Your task to perform on an android device: check google app version Image 0: 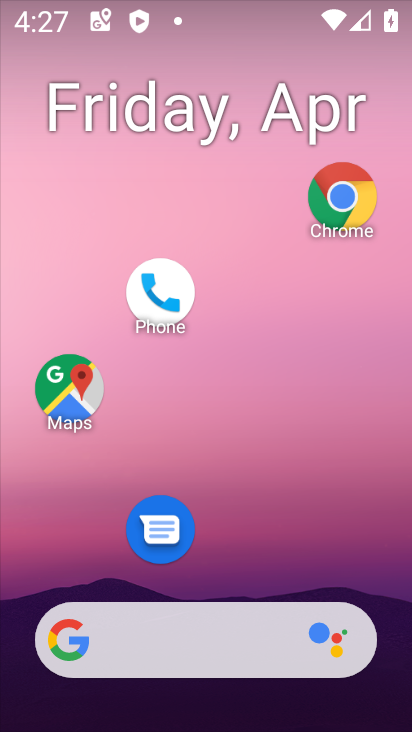
Step 0: drag from (264, 583) to (258, 96)
Your task to perform on an android device: check google app version Image 1: 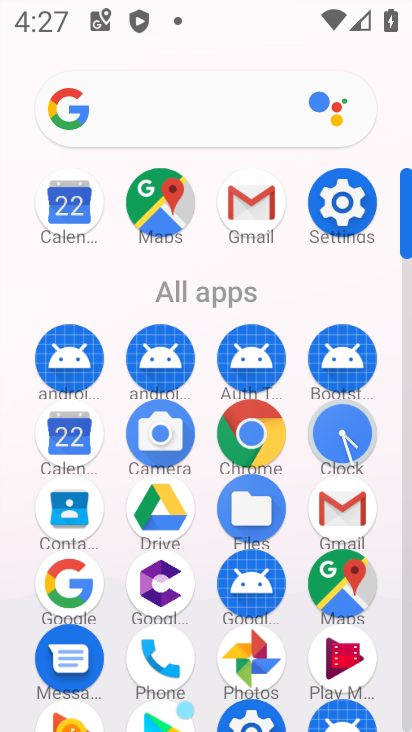
Step 1: click (70, 581)
Your task to perform on an android device: check google app version Image 2: 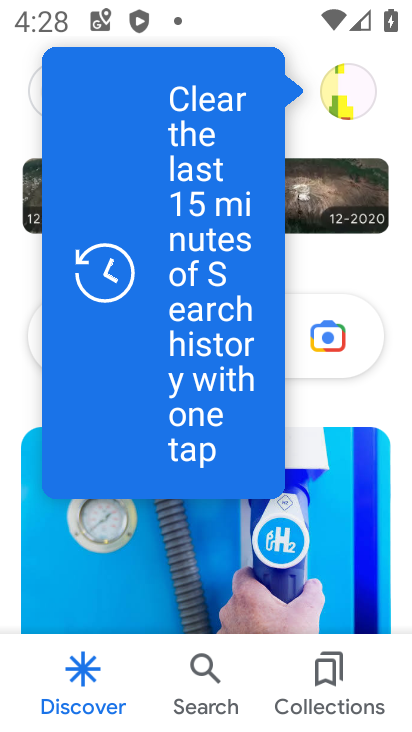
Step 2: drag from (354, 674) to (10, 679)
Your task to perform on an android device: check google app version Image 3: 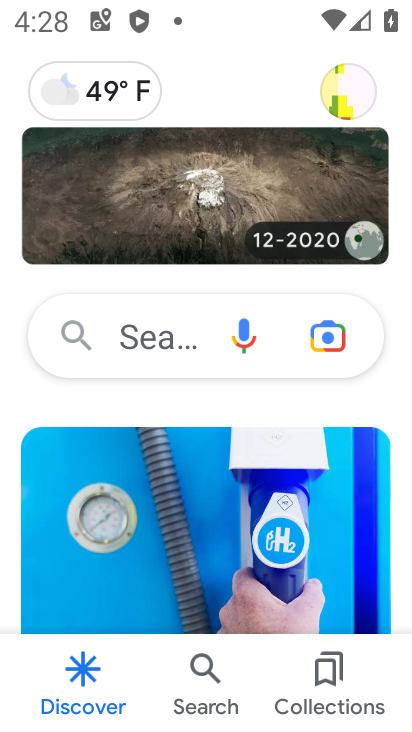
Step 3: click (347, 91)
Your task to perform on an android device: check google app version Image 4: 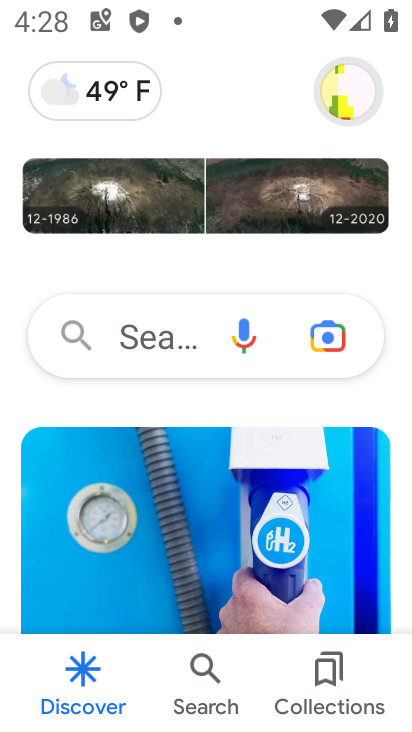
Step 4: click (346, 83)
Your task to perform on an android device: check google app version Image 5: 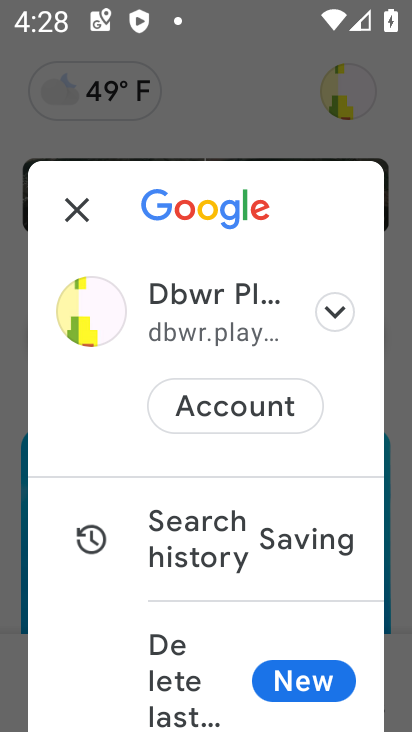
Step 5: drag from (178, 621) to (189, 381)
Your task to perform on an android device: check google app version Image 6: 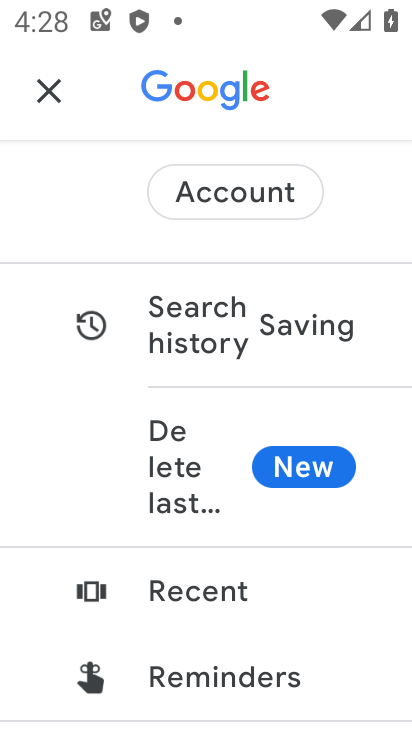
Step 6: drag from (174, 620) to (175, 267)
Your task to perform on an android device: check google app version Image 7: 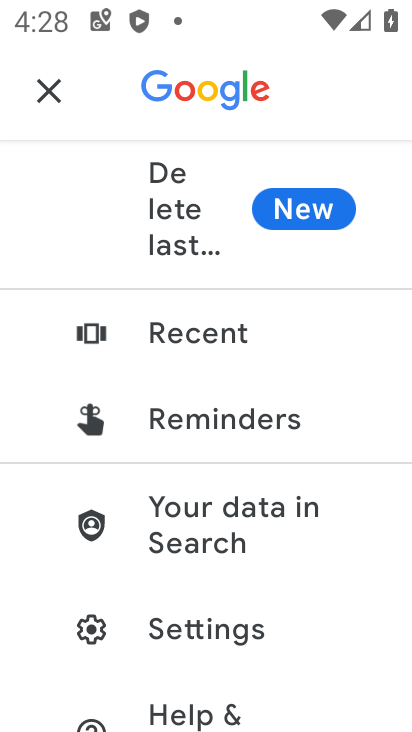
Step 7: click (126, 622)
Your task to perform on an android device: check google app version Image 8: 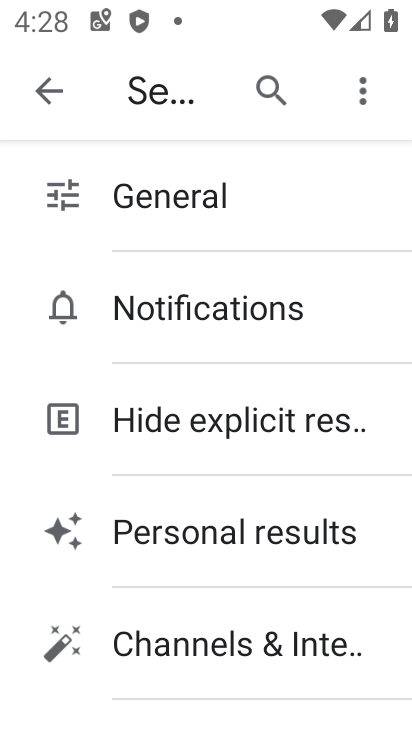
Step 8: drag from (203, 372) to (220, 212)
Your task to perform on an android device: check google app version Image 9: 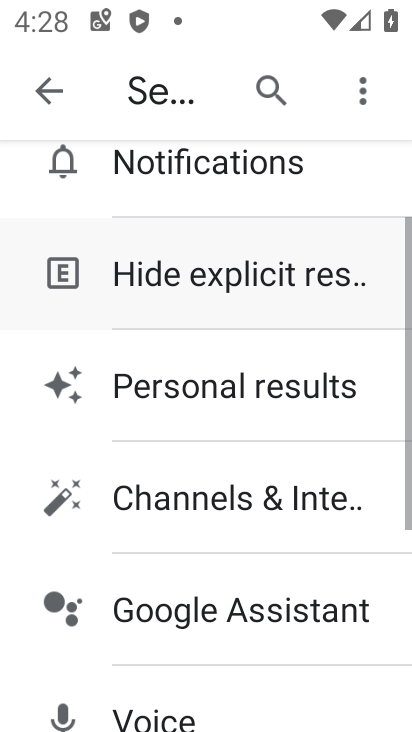
Step 9: drag from (177, 514) to (203, 164)
Your task to perform on an android device: check google app version Image 10: 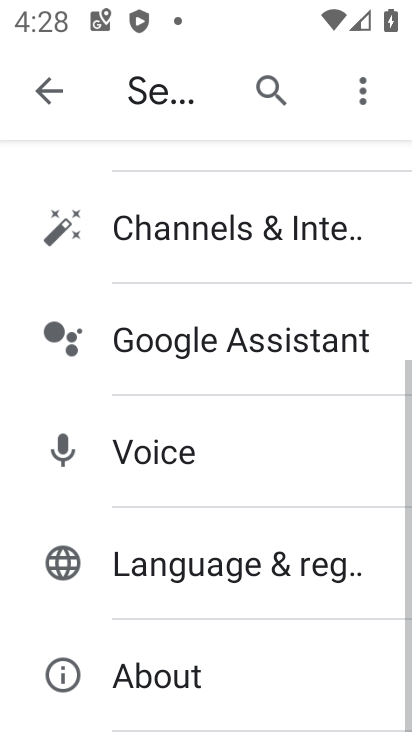
Step 10: click (216, 680)
Your task to perform on an android device: check google app version Image 11: 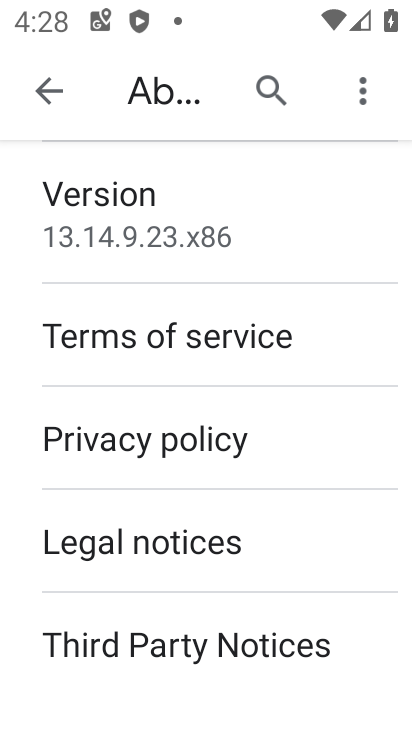
Step 11: task complete